Your task to perform on an android device: change the clock style Image 0: 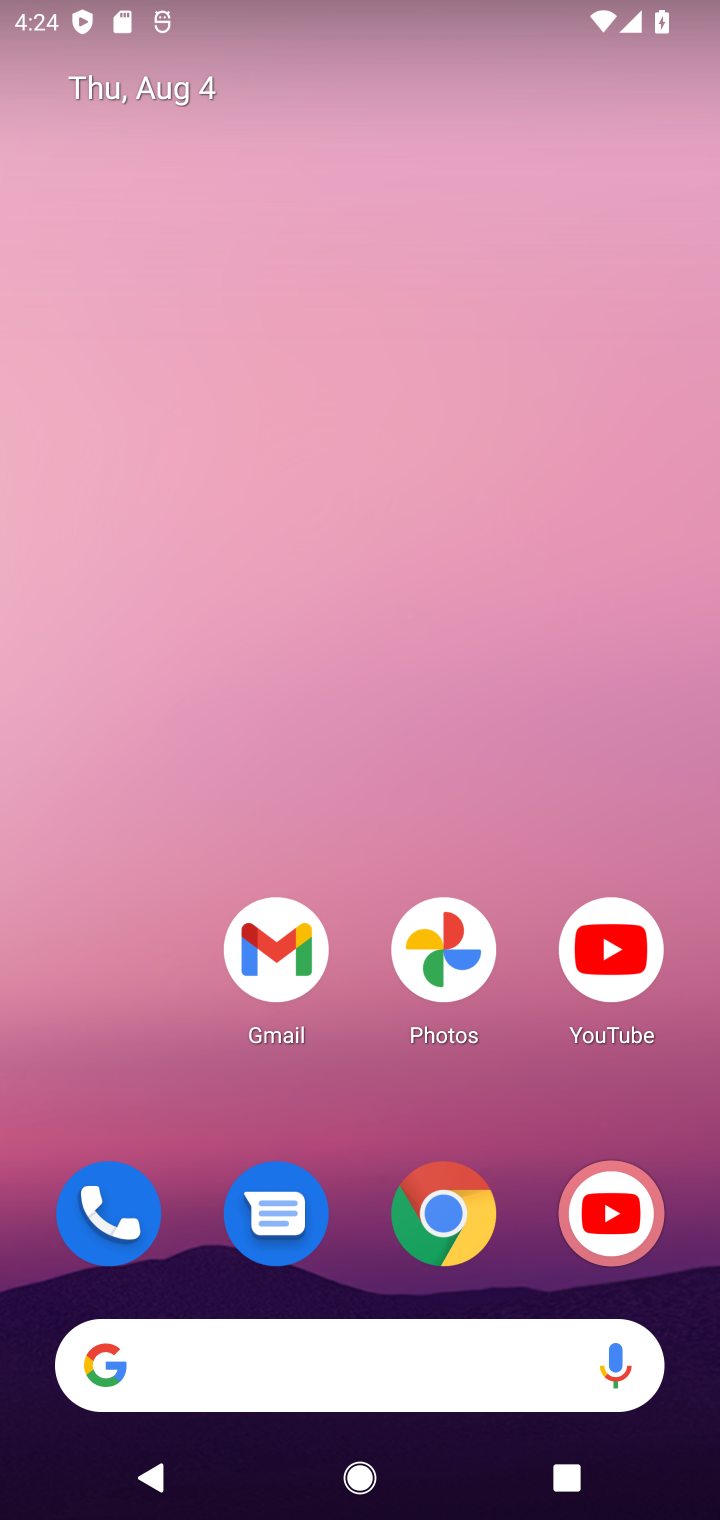
Step 0: drag from (289, 1375) to (307, 0)
Your task to perform on an android device: change the clock style Image 1: 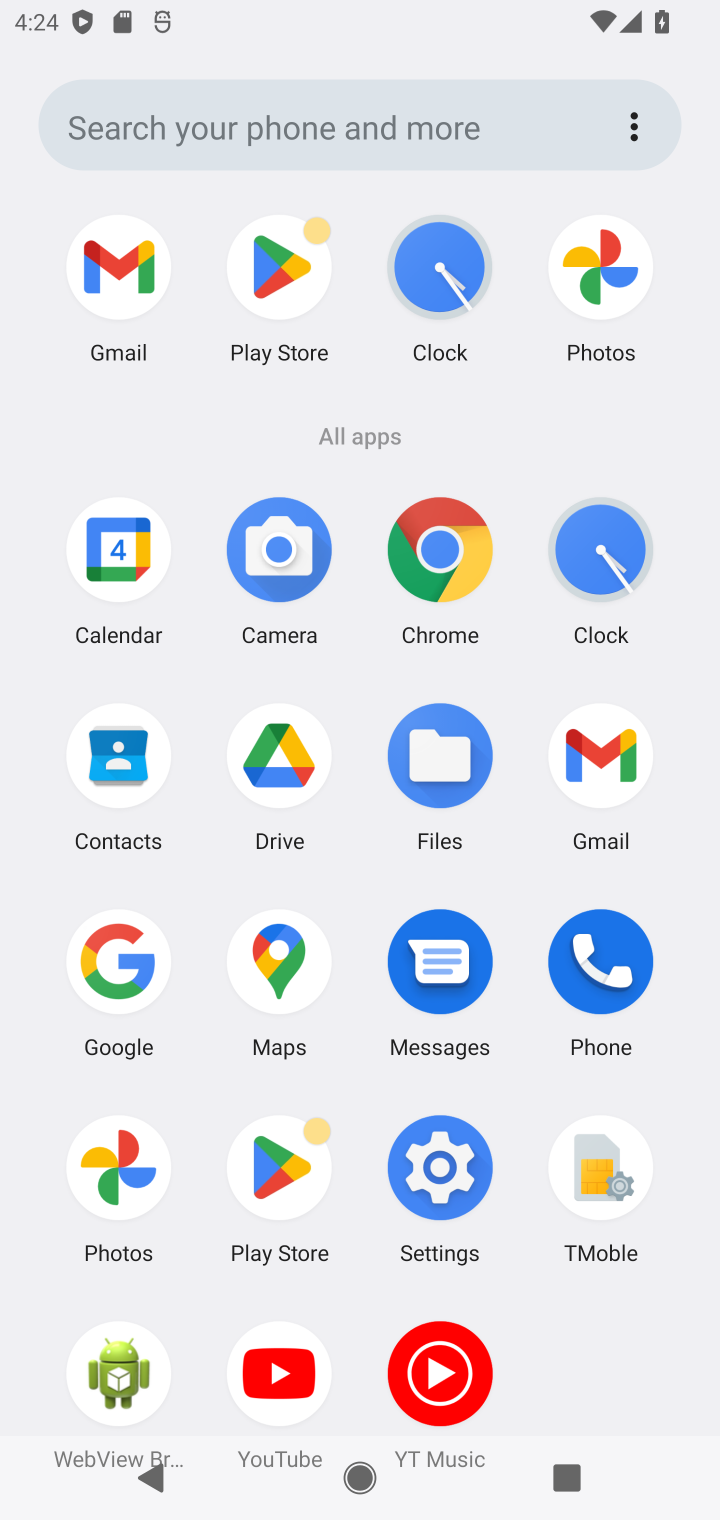
Step 1: click (598, 551)
Your task to perform on an android device: change the clock style Image 2: 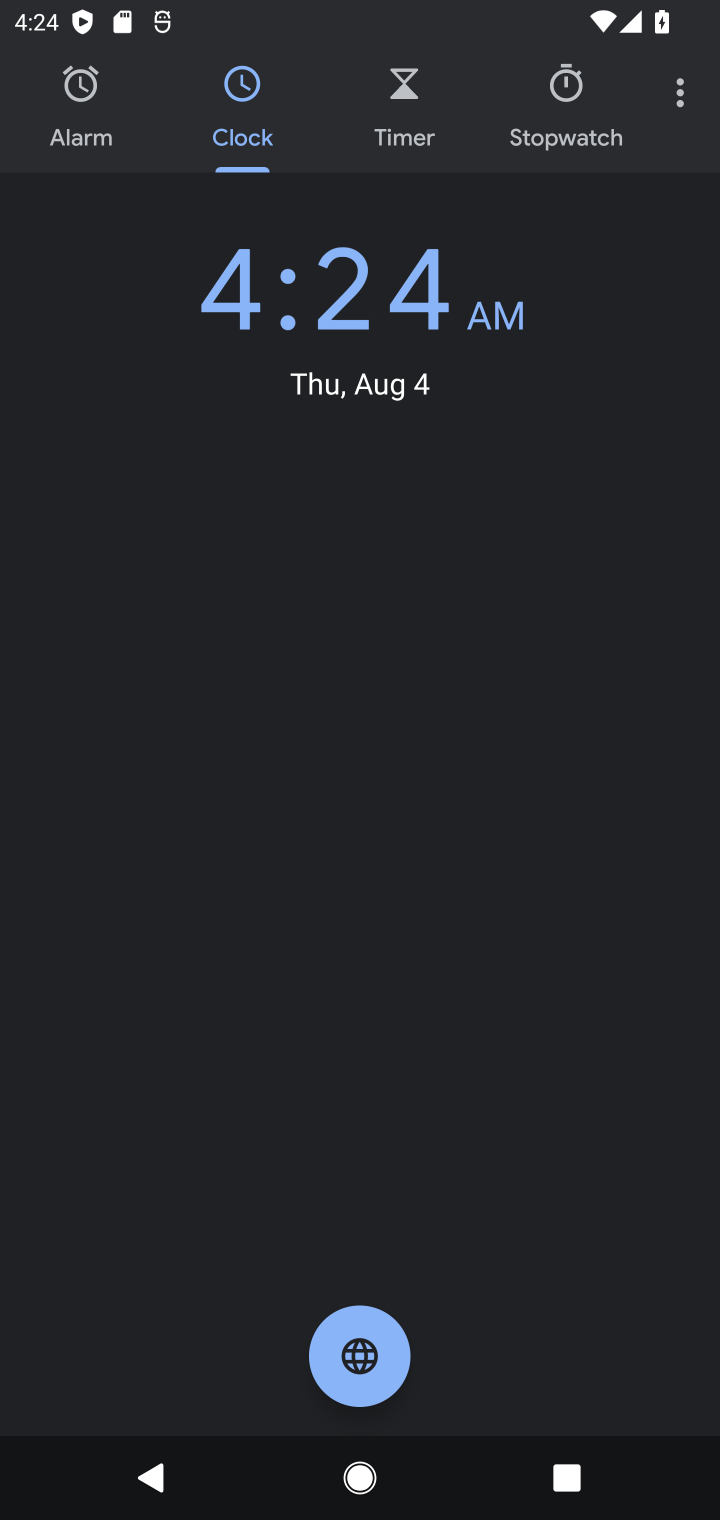
Step 2: click (683, 104)
Your task to perform on an android device: change the clock style Image 3: 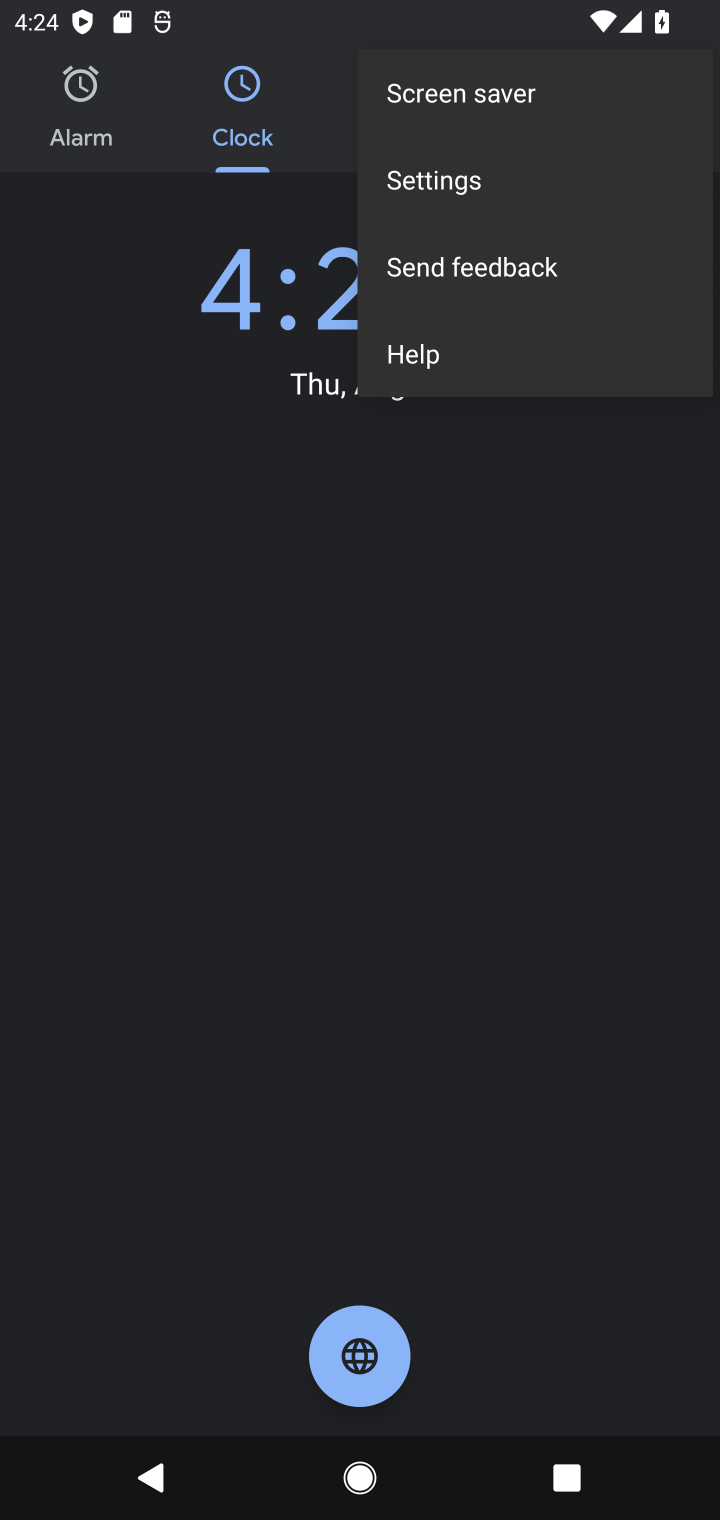
Step 3: click (443, 198)
Your task to perform on an android device: change the clock style Image 4: 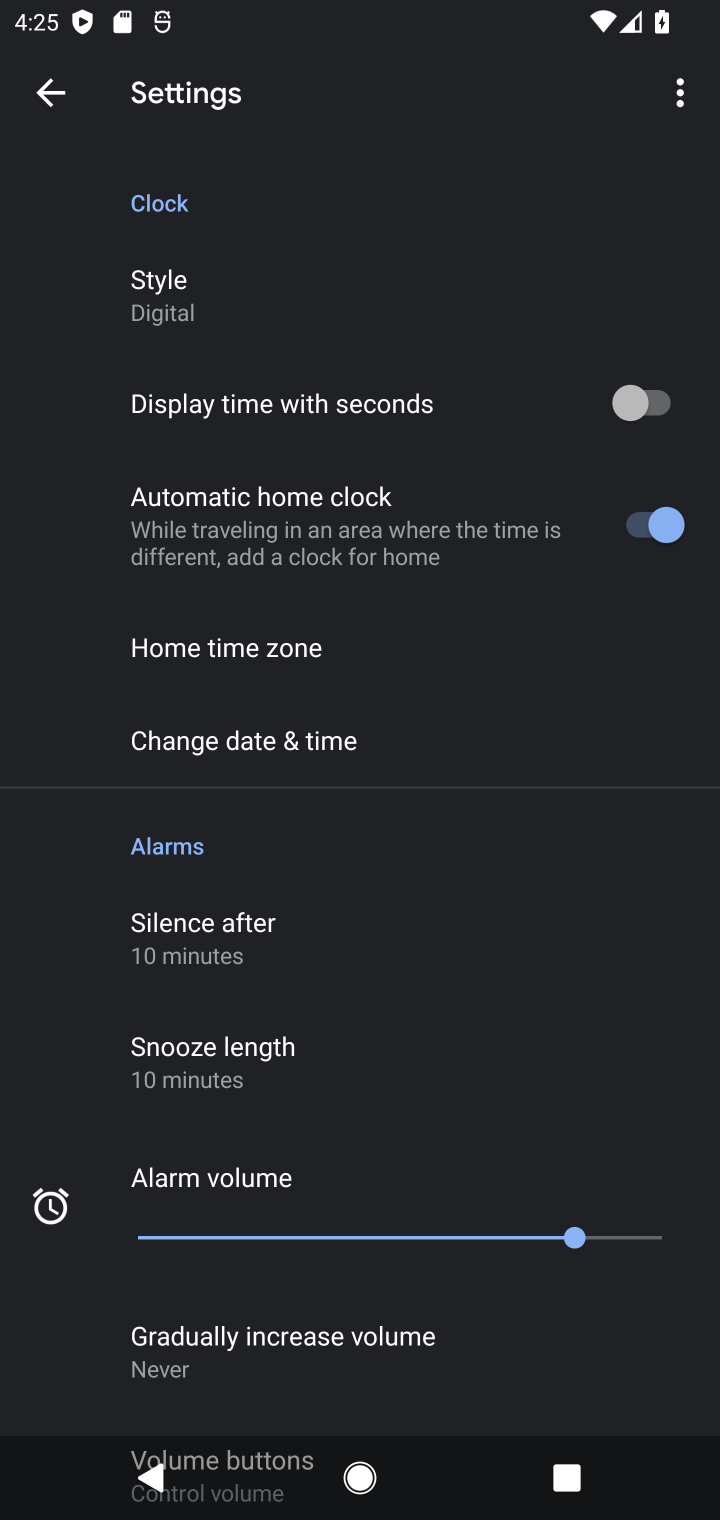
Step 4: click (188, 291)
Your task to perform on an android device: change the clock style Image 5: 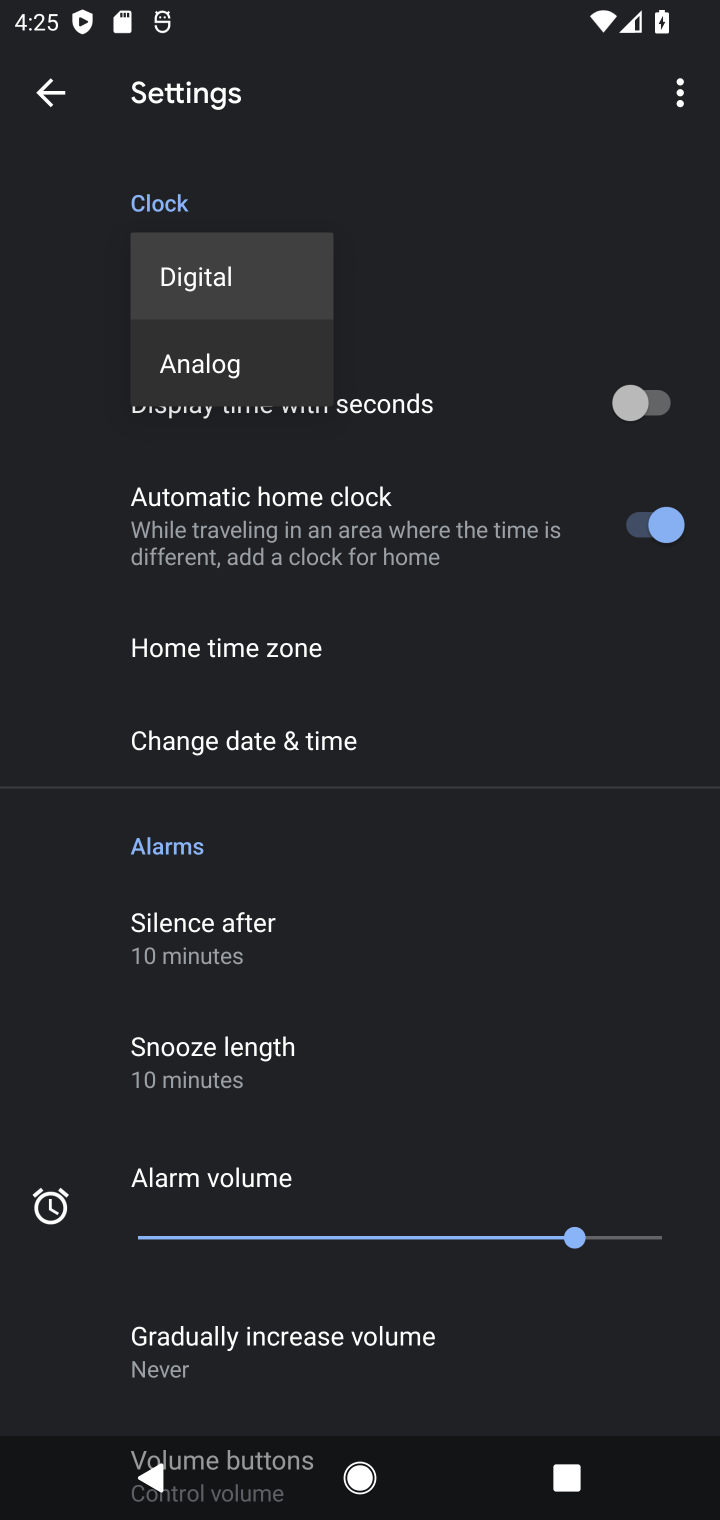
Step 5: click (212, 364)
Your task to perform on an android device: change the clock style Image 6: 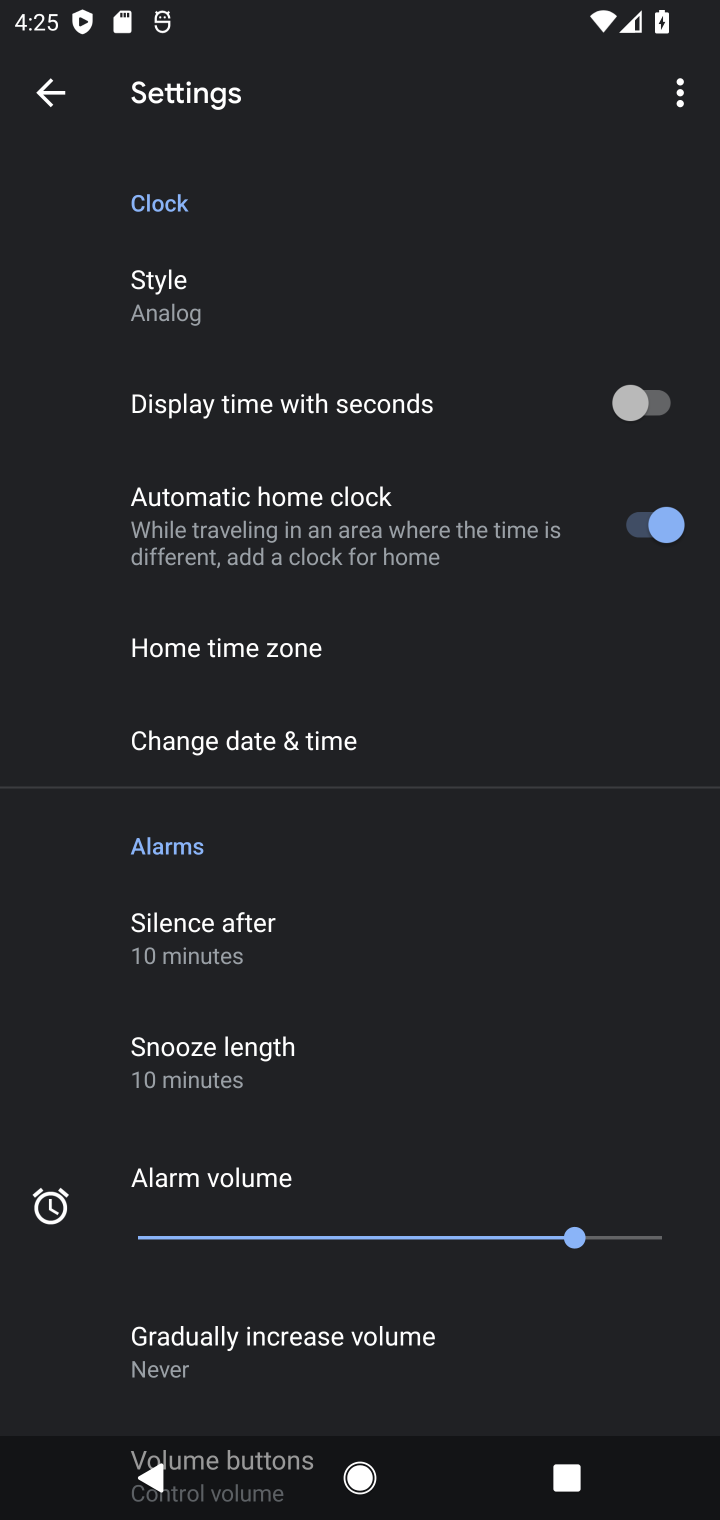
Step 6: task complete